Your task to perform on an android device: Open Android settings Image 0: 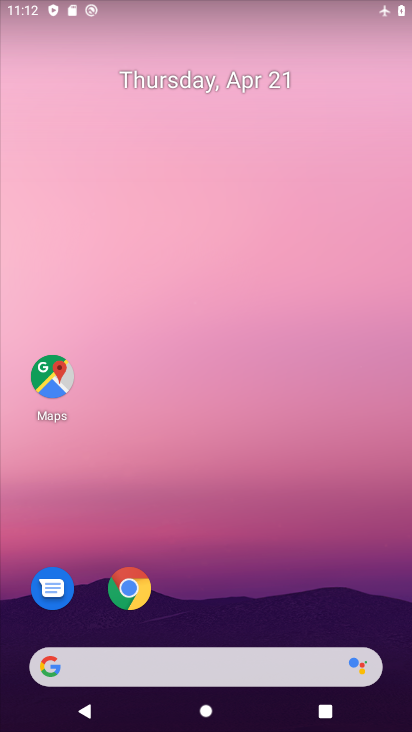
Step 0: drag from (218, 564) to (250, 66)
Your task to perform on an android device: Open Android settings Image 1: 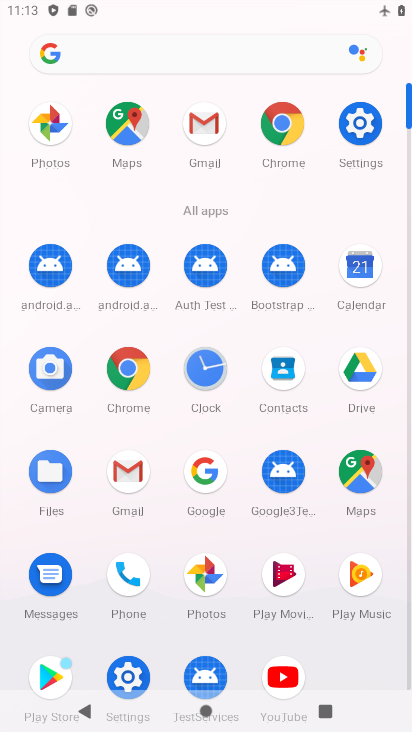
Step 1: click (361, 134)
Your task to perform on an android device: Open Android settings Image 2: 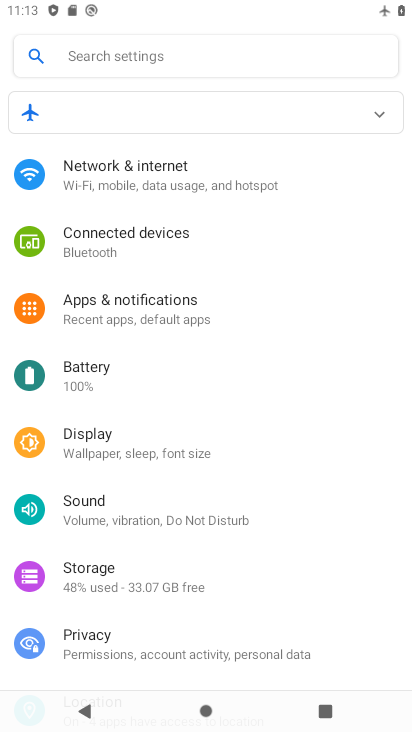
Step 2: task complete